Your task to perform on an android device: install app "TextNow: Call + Text Unlimited" Image 0: 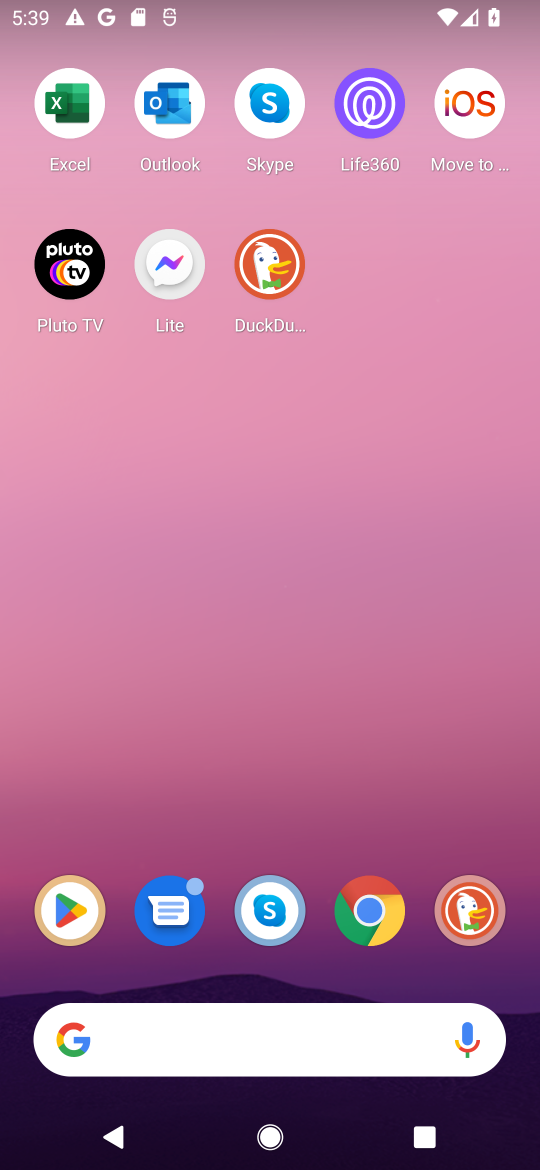
Step 0: drag from (289, 1012) to (264, 12)
Your task to perform on an android device: install app "TextNow: Call + Text Unlimited" Image 1: 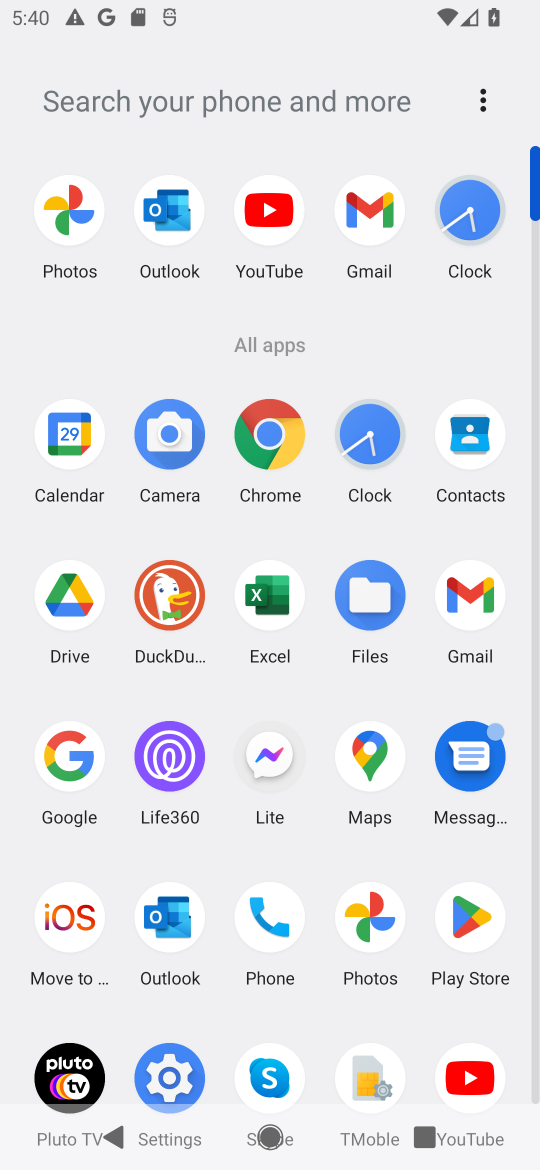
Step 1: drag from (323, 1037) to (309, 390)
Your task to perform on an android device: install app "TextNow: Call + Text Unlimited" Image 2: 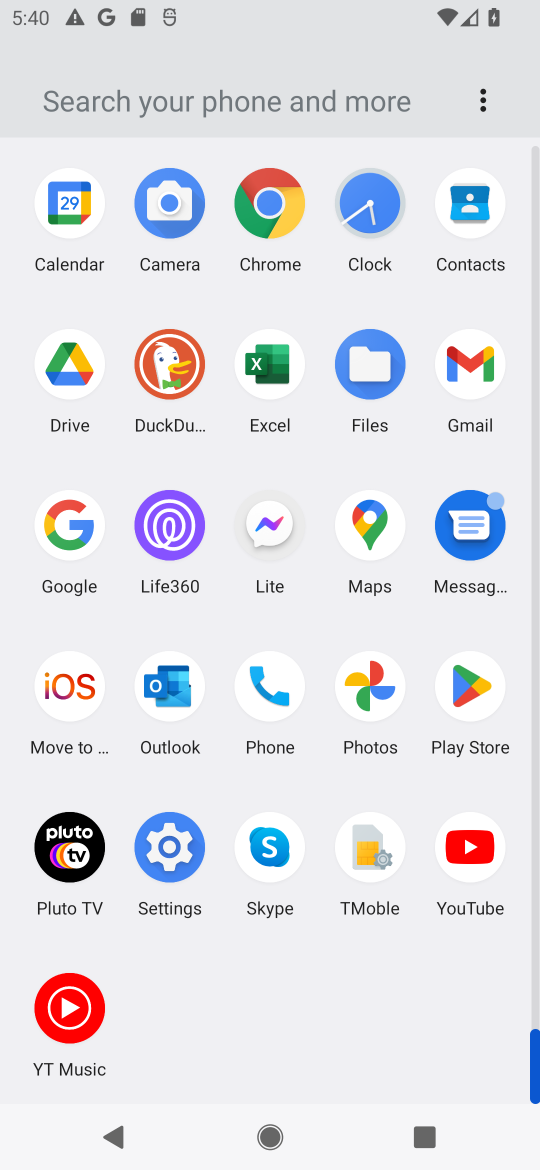
Step 2: click (471, 689)
Your task to perform on an android device: install app "TextNow: Call + Text Unlimited" Image 3: 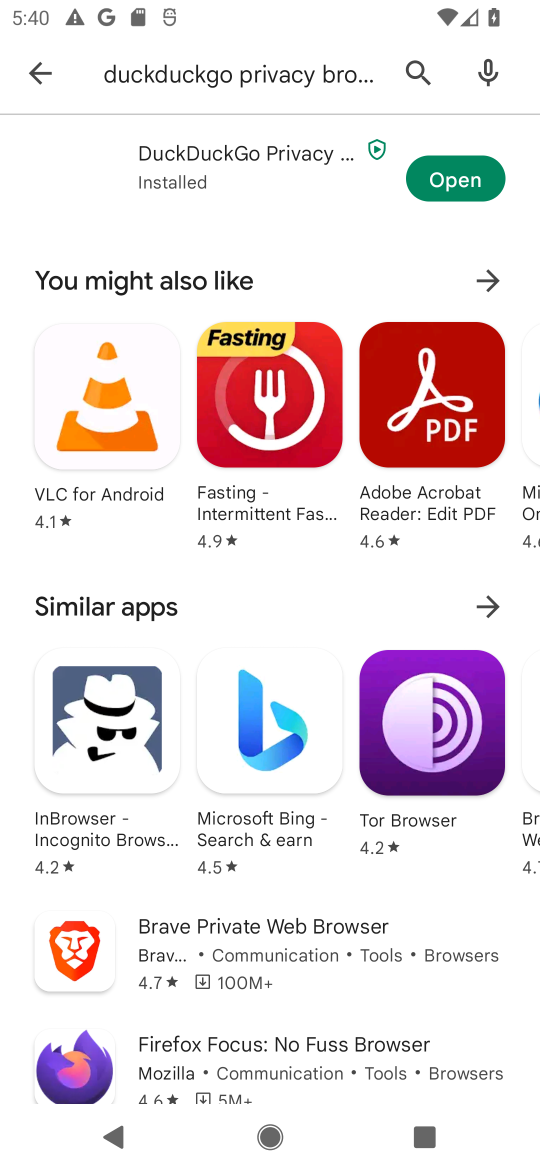
Step 3: click (38, 69)
Your task to perform on an android device: install app "TextNow: Call + Text Unlimited" Image 4: 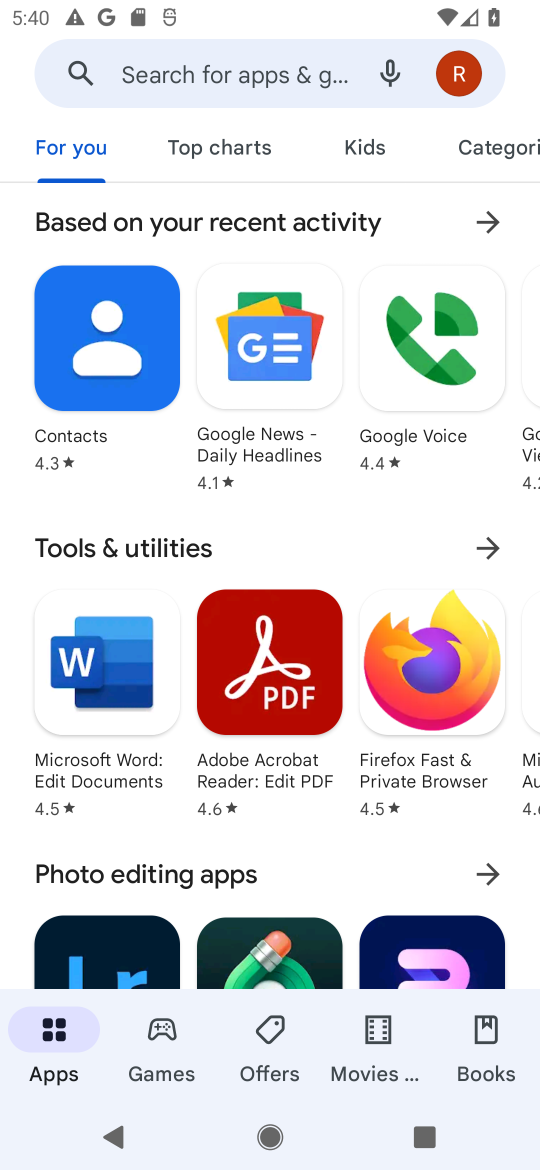
Step 4: click (180, 62)
Your task to perform on an android device: install app "TextNow: Call + Text Unlimited" Image 5: 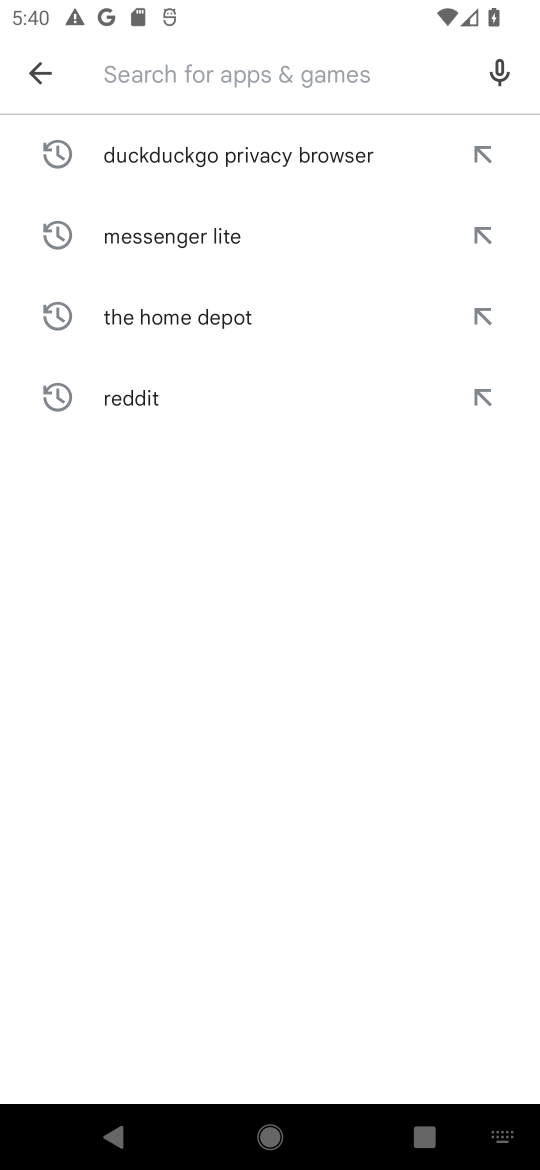
Step 5: type "TextNow: Call + Text Unlimited"
Your task to perform on an android device: install app "TextNow: Call + Text Unlimited" Image 6: 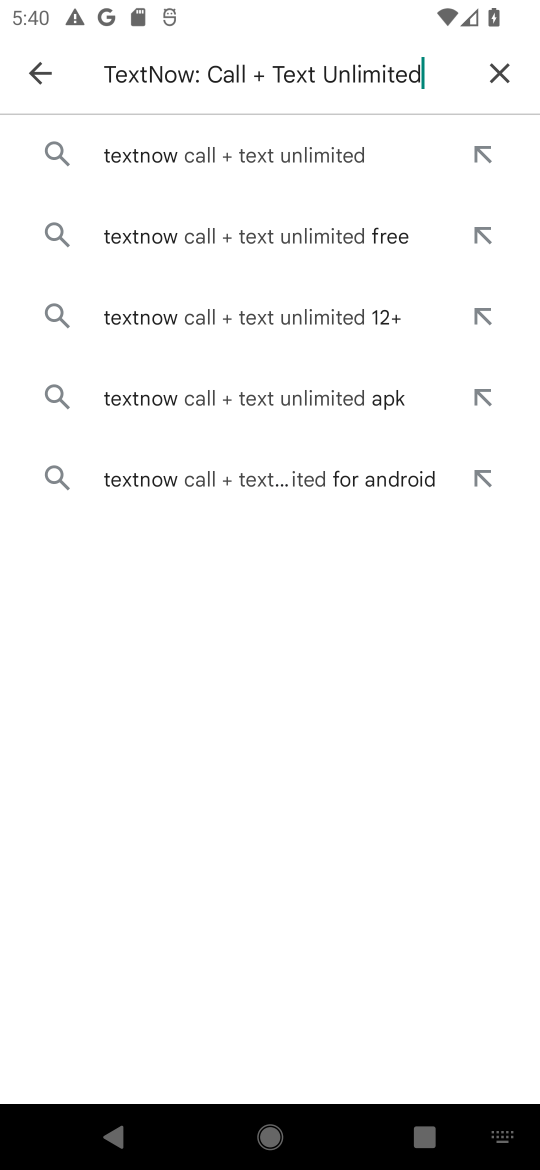
Step 6: click (238, 154)
Your task to perform on an android device: install app "TextNow: Call + Text Unlimited" Image 7: 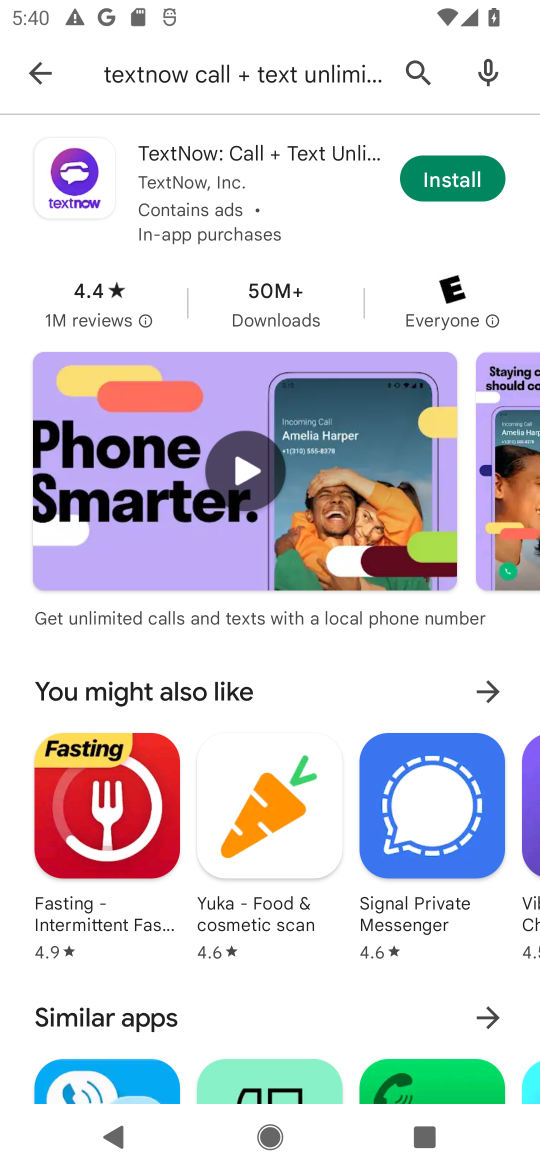
Step 7: click (457, 172)
Your task to perform on an android device: install app "TextNow: Call + Text Unlimited" Image 8: 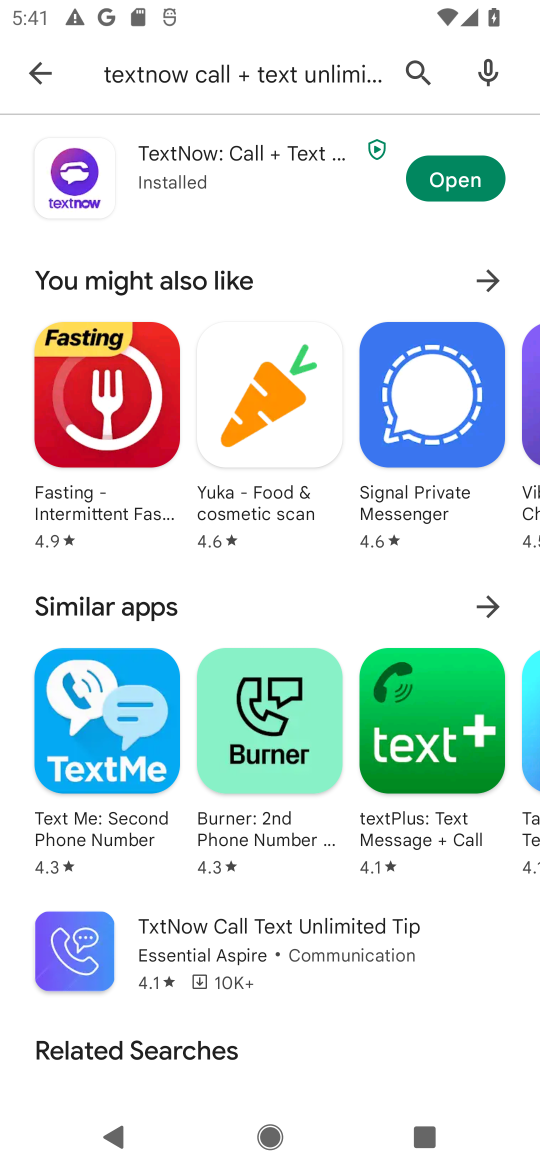
Step 8: click (448, 176)
Your task to perform on an android device: install app "TextNow: Call + Text Unlimited" Image 9: 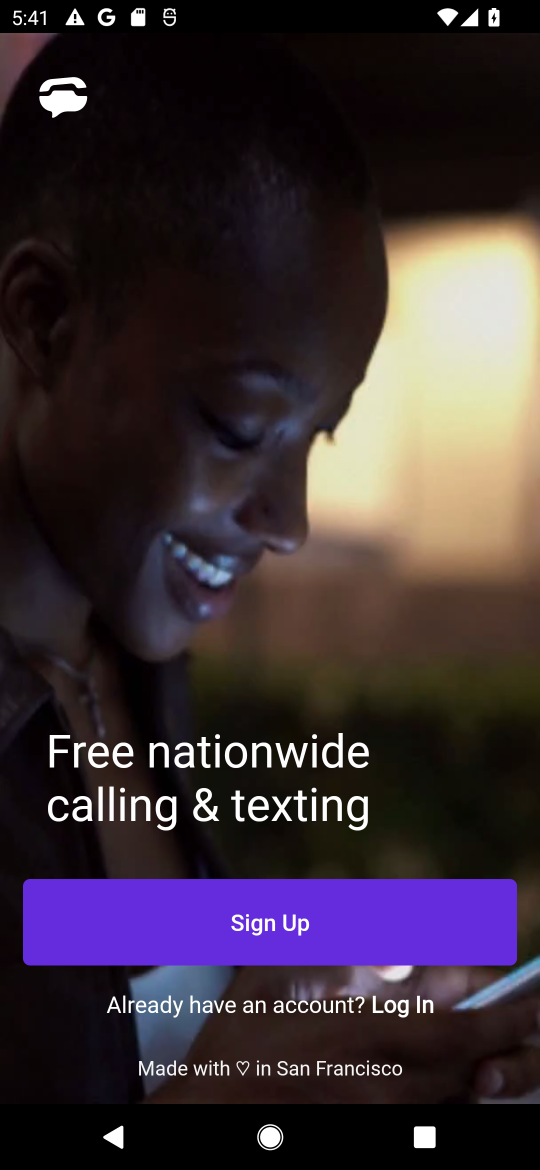
Step 9: task complete